Your task to perform on an android device: choose inbox layout in the gmail app Image 0: 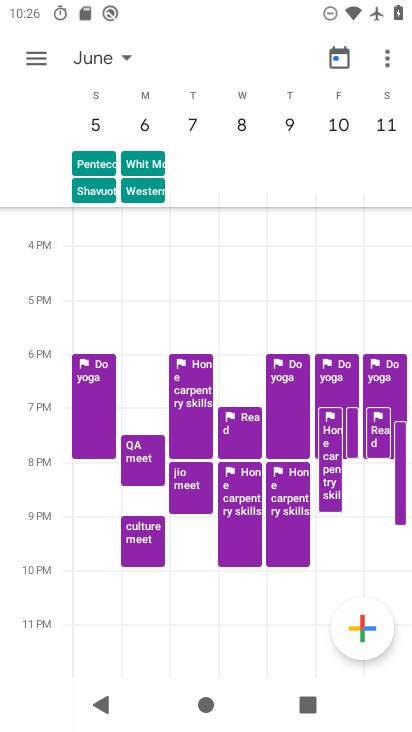
Step 0: press home button
Your task to perform on an android device: choose inbox layout in the gmail app Image 1: 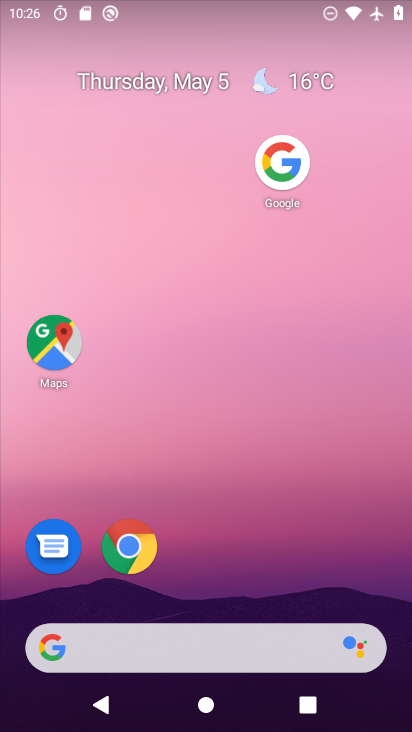
Step 1: drag from (161, 640) to (300, 135)
Your task to perform on an android device: choose inbox layout in the gmail app Image 2: 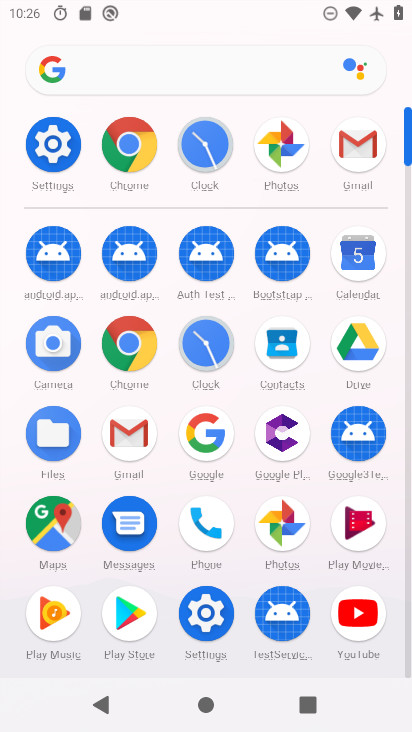
Step 2: click (127, 444)
Your task to perform on an android device: choose inbox layout in the gmail app Image 3: 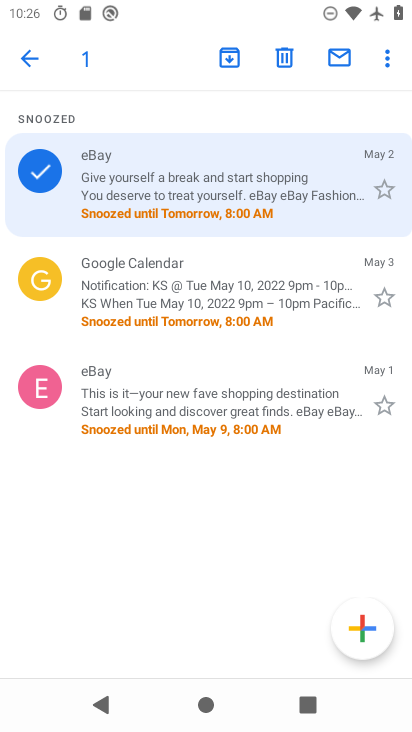
Step 3: click (30, 58)
Your task to perform on an android device: choose inbox layout in the gmail app Image 4: 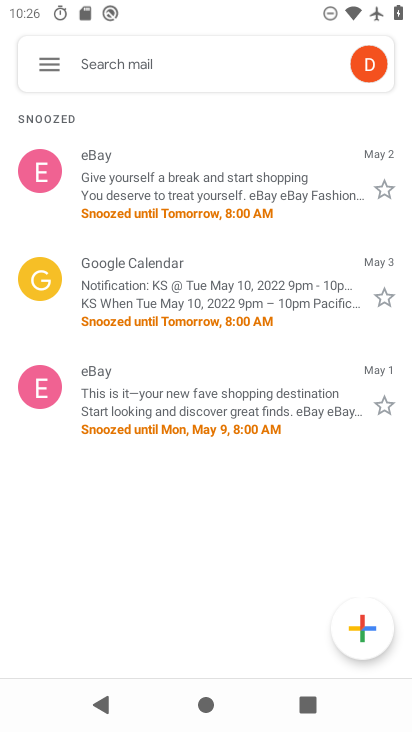
Step 4: click (42, 61)
Your task to perform on an android device: choose inbox layout in the gmail app Image 5: 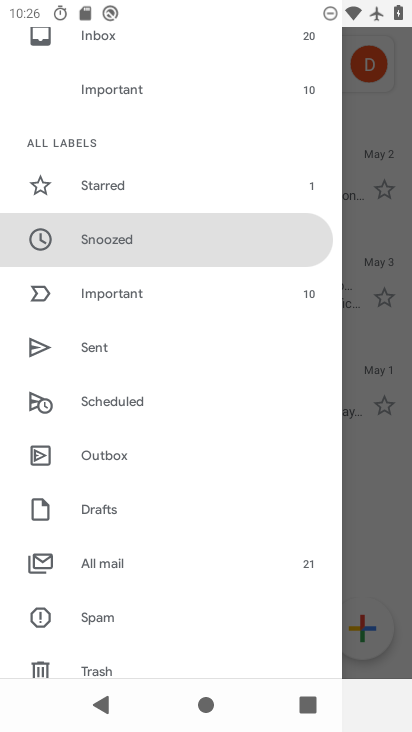
Step 5: drag from (166, 611) to (333, 154)
Your task to perform on an android device: choose inbox layout in the gmail app Image 6: 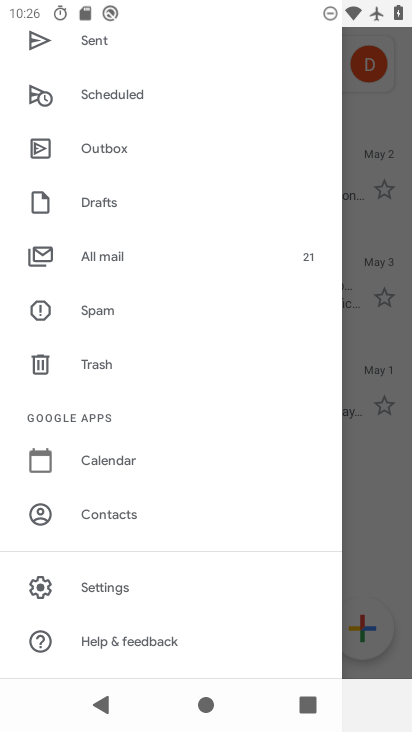
Step 6: click (104, 582)
Your task to perform on an android device: choose inbox layout in the gmail app Image 7: 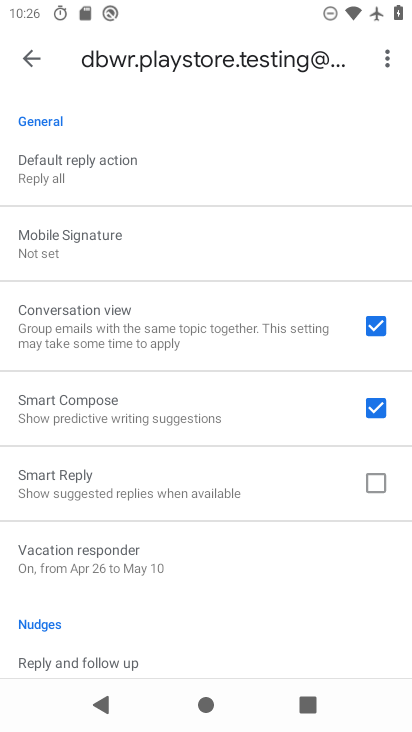
Step 7: drag from (281, 143) to (232, 580)
Your task to perform on an android device: choose inbox layout in the gmail app Image 8: 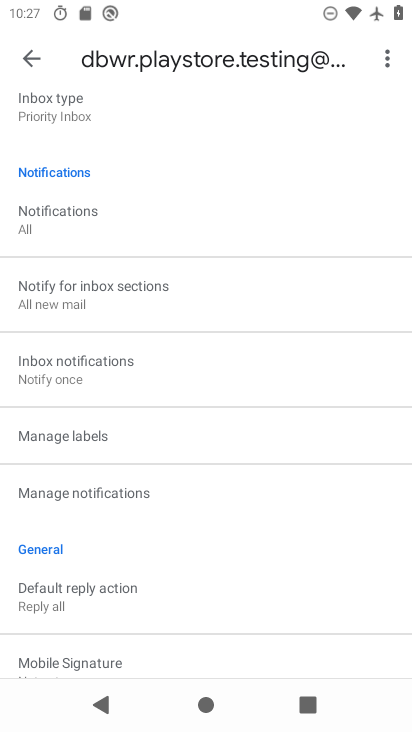
Step 8: click (85, 113)
Your task to perform on an android device: choose inbox layout in the gmail app Image 9: 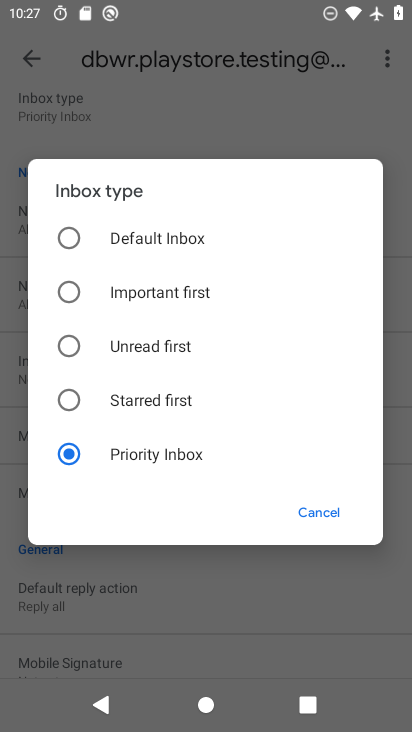
Step 9: click (67, 239)
Your task to perform on an android device: choose inbox layout in the gmail app Image 10: 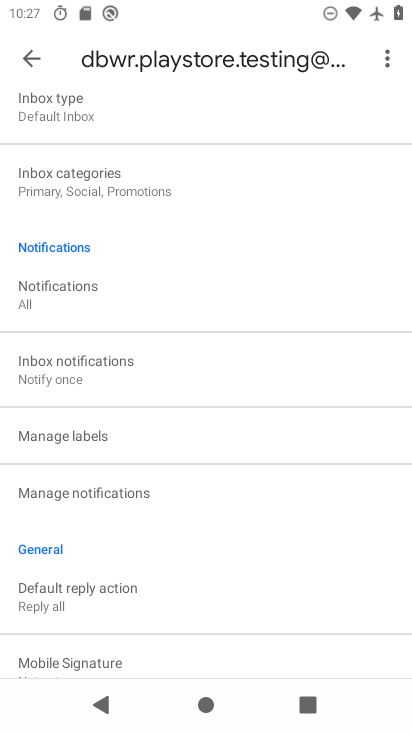
Step 10: task complete